Your task to perform on an android device: add a contact in the contacts app Image 0: 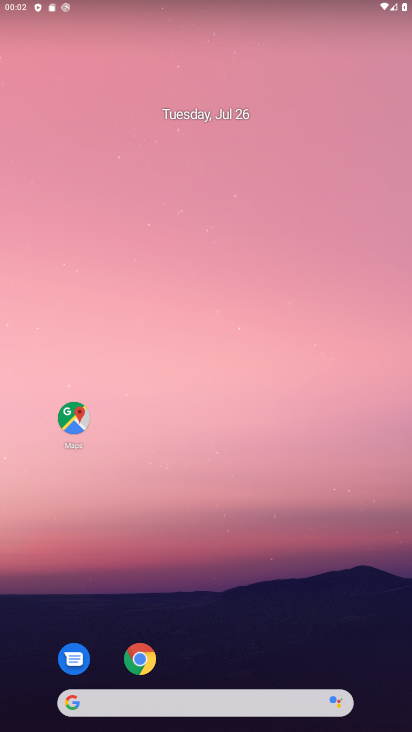
Step 0: drag from (338, 575) to (318, 4)
Your task to perform on an android device: add a contact in the contacts app Image 1: 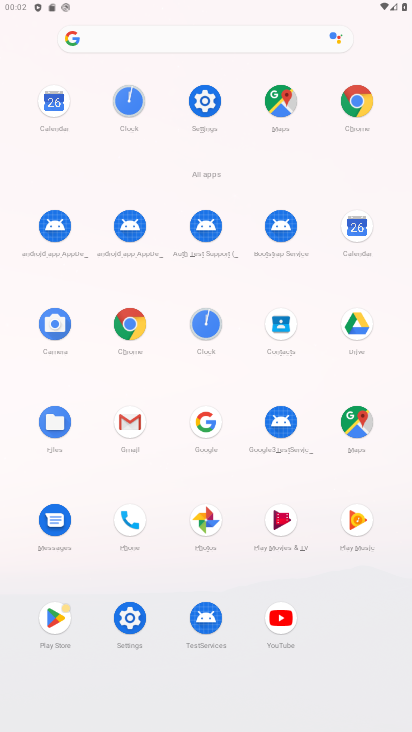
Step 1: click (278, 322)
Your task to perform on an android device: add a contact in the contacts app Image 2: 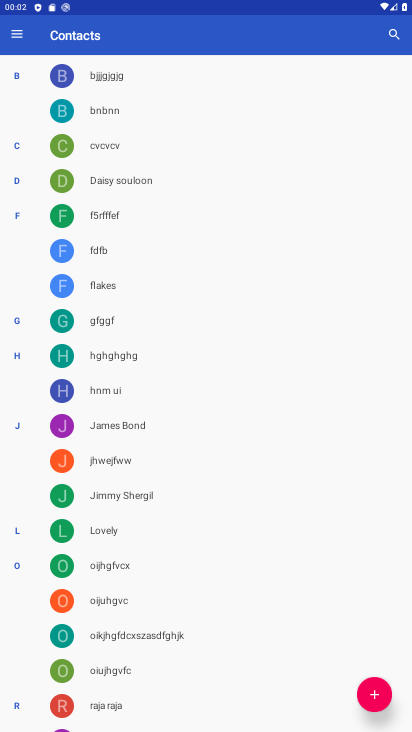
Step 2: click (383, 696)
Your task to perform on an android device: add a contact in the contacts app Image 3: 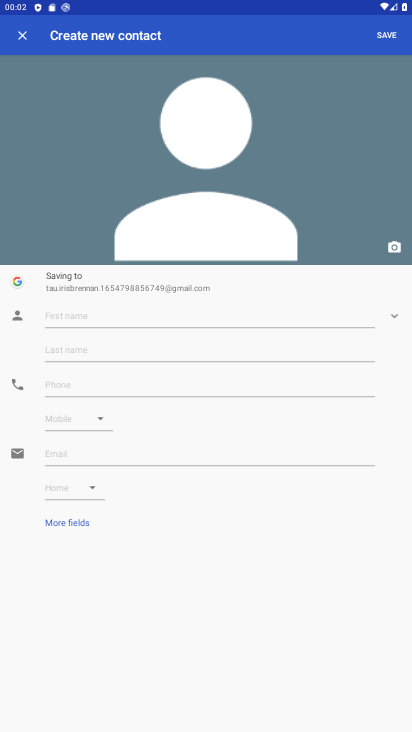
Step 3: click (248, 322)
Your task to perform on an android device: add a contact in the contacts app Image 4: 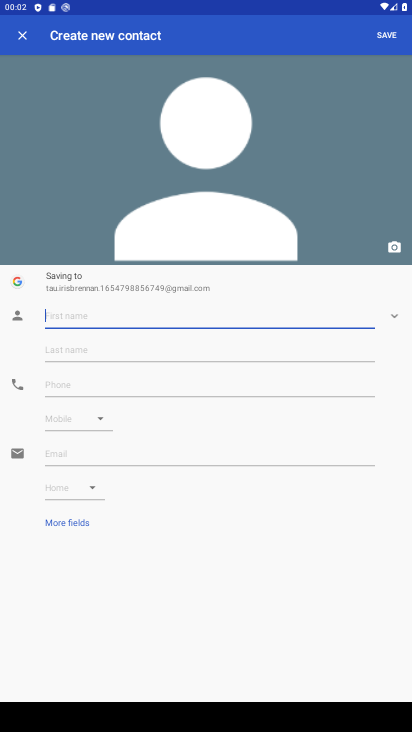
Step 4: type "saffron"
Your task to perform on an android device: add a contact in the contacts app Image 5: 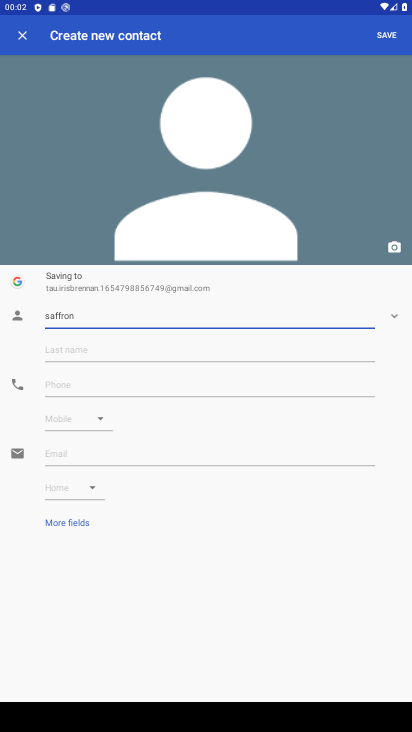
Step 5: click (385, 35)
Your task to perform on an android device: add a contact in the contacts app Image 6: 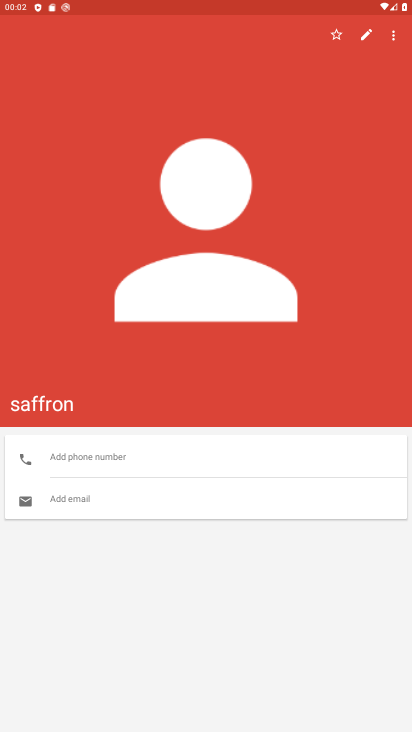
Step 6: task complete